Your task to perform on an android device: When is my next appointment? Image 0: 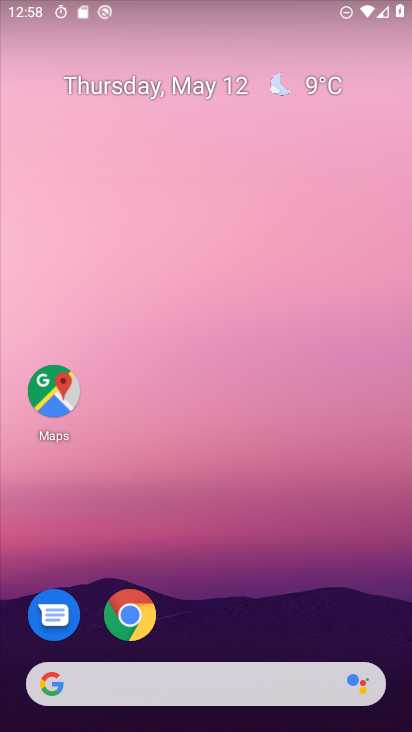
Step 0: drag from (305, 592) to (318, 107)
Your task to perform on an android device: When is my next appointment? Image 1: 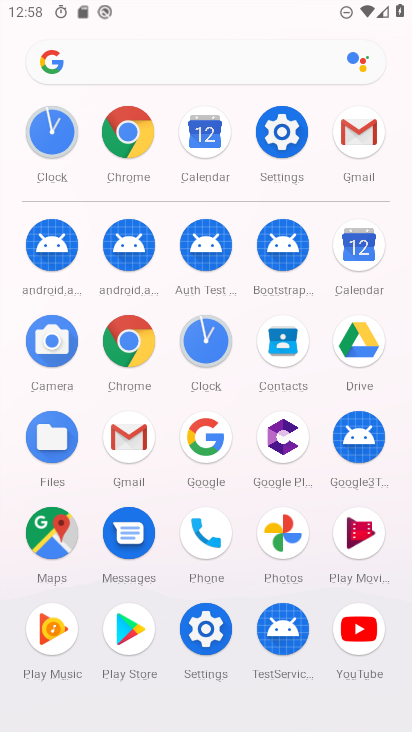
Step 1: click (354, 251)
Your task to perform on an android device: When is my next appointment? Image 2: 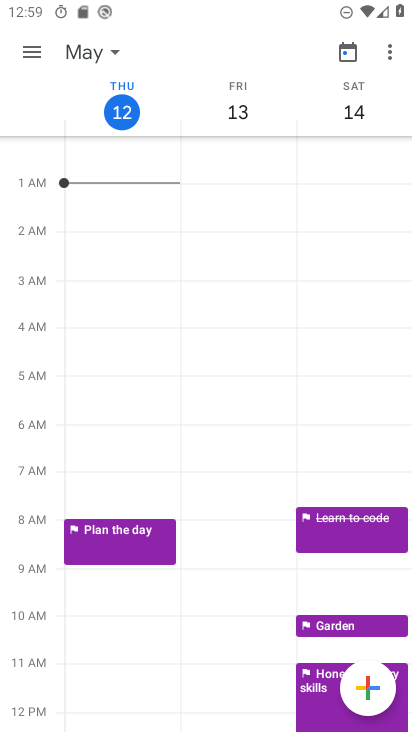
Step 2: task complete